Your task to perform on an android device: Search for the best way to get rid of a cold Image 0: 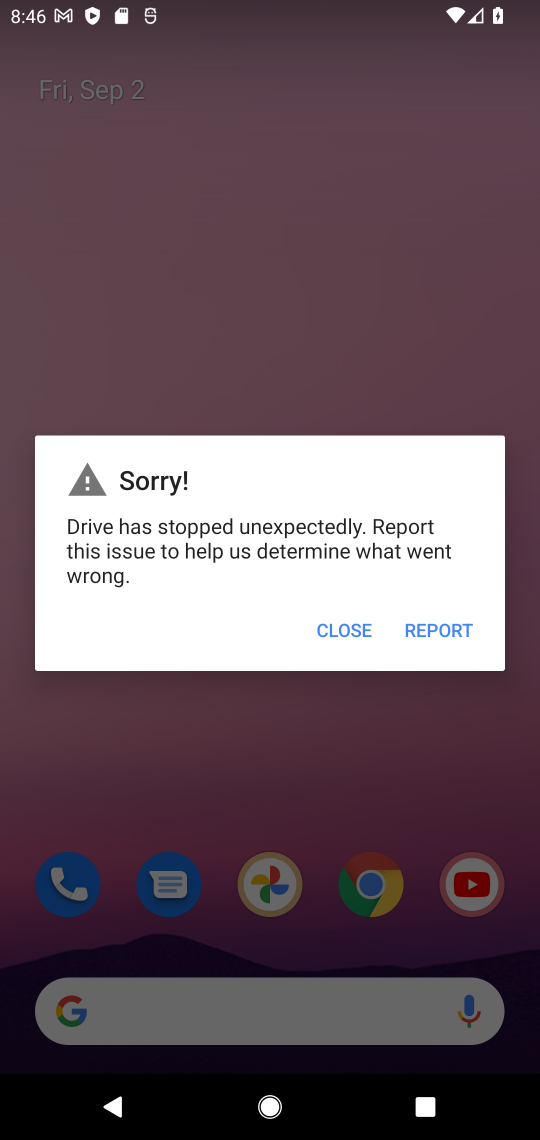
Step 0: press home button
Your task to perform on an android device: Search for the best way to get rid of a cold Image 1: 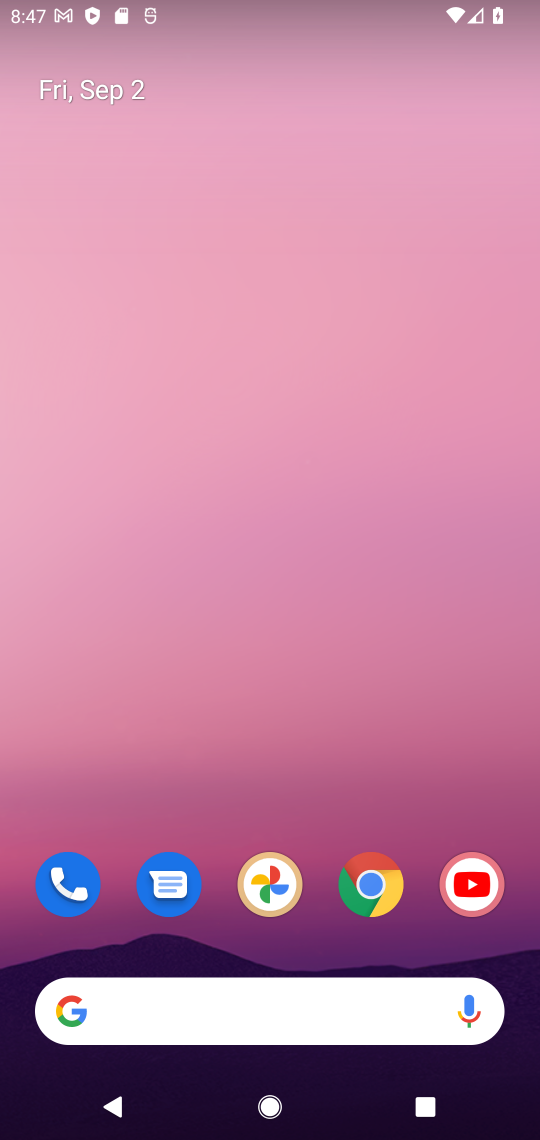
Step 1: click (388, 888)
Your task to perform on an android device: Search for the best way to get rid of a cold Image 2: 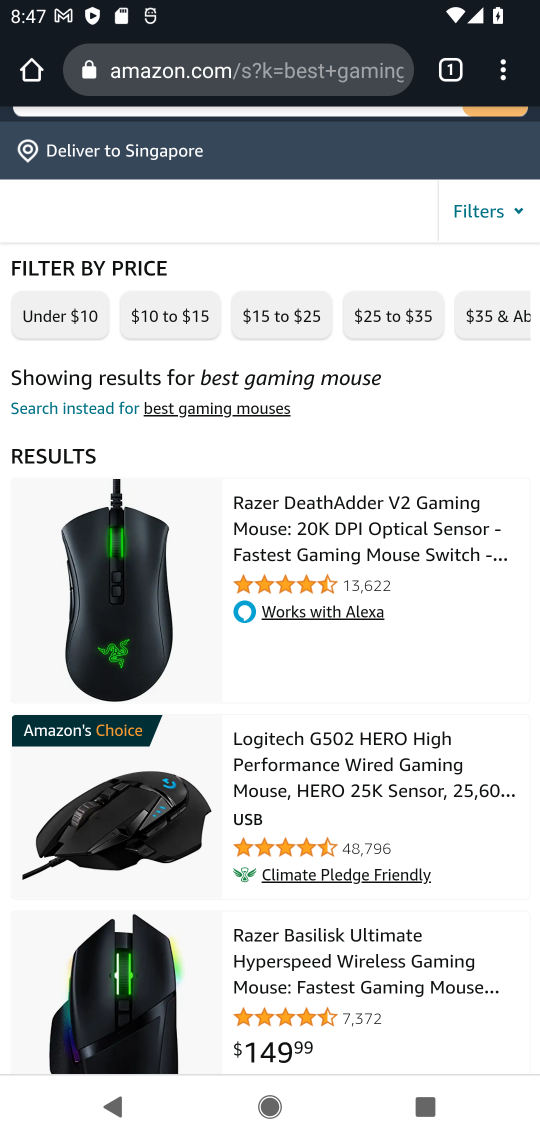
Step 2: press back button
Your task to perform on an android device: Search for the best way to get rid of a cold Image 3: 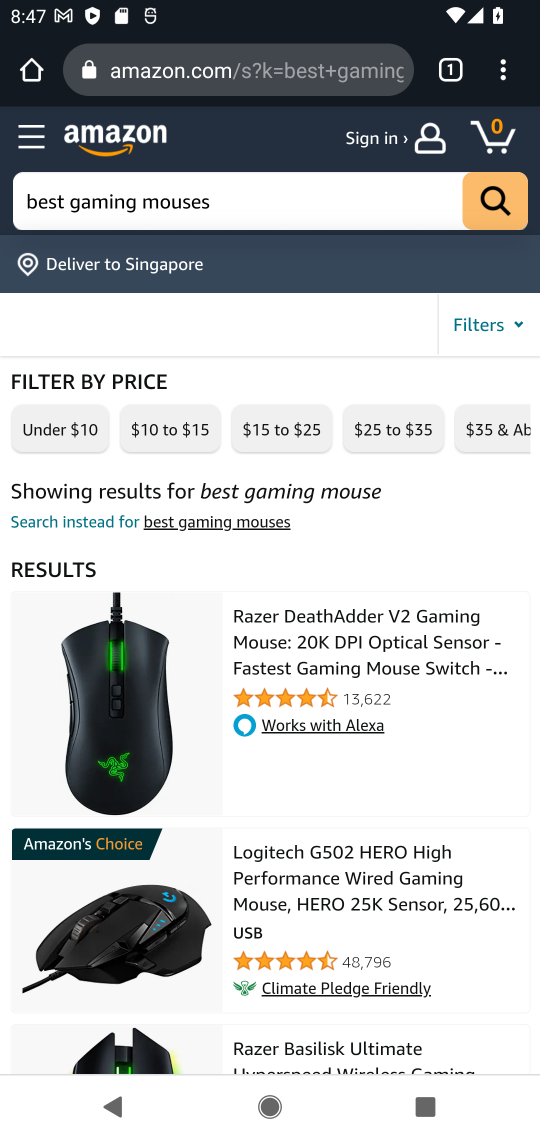
Step 3: press back button
Your task to perform on an android device: Search for the best way to get rid of a cold Image 4: 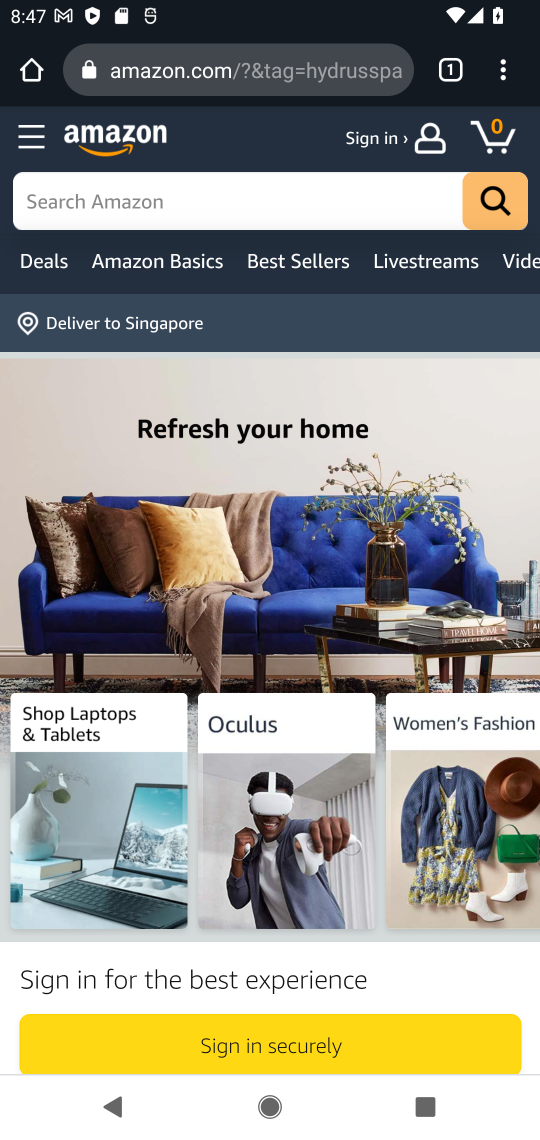
Step 4: click (205, 77)
Your task to perform on an android device: Search for the best way to get rid of a cold Image 5: 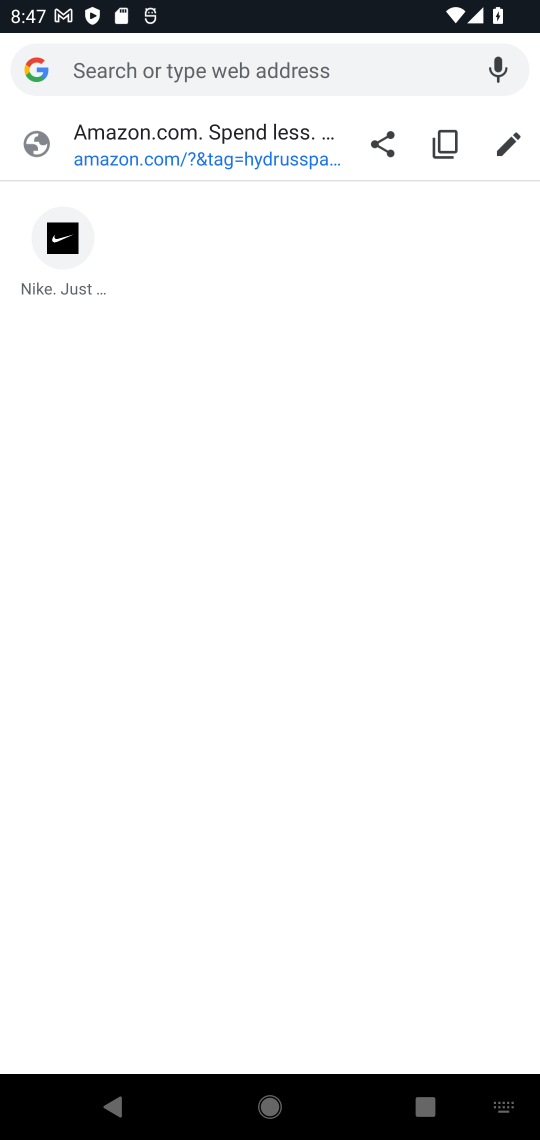
Step 5: type "the best way to get rid of a cold"
Your task to perform on an android device: Search for the best way to get rid of a cold Image 6: 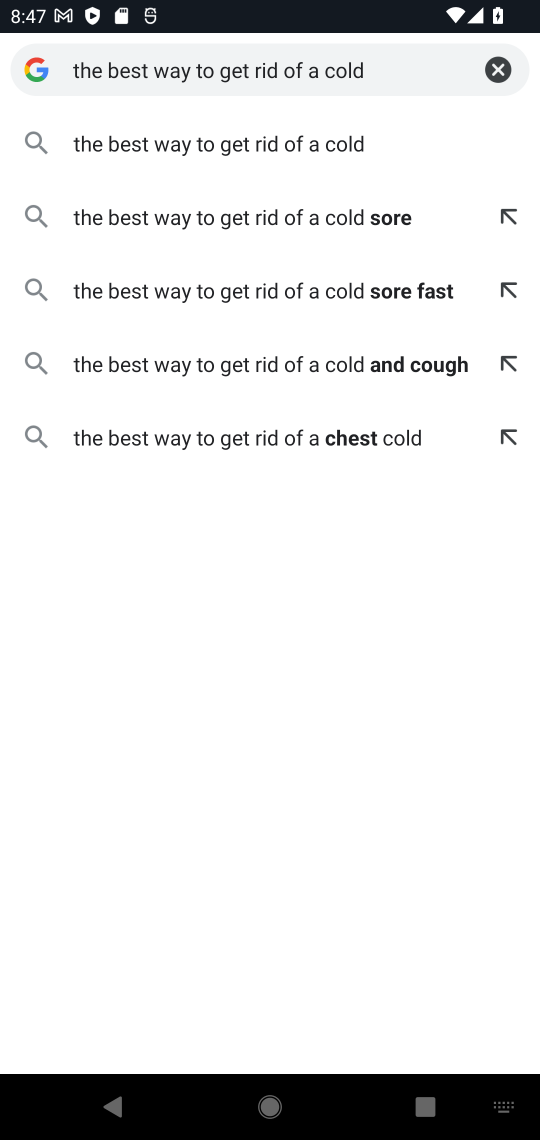
Step 6: click (237, 155)
Your task to perform on an android device: Search for the best way to get rid of a cold Image 7: 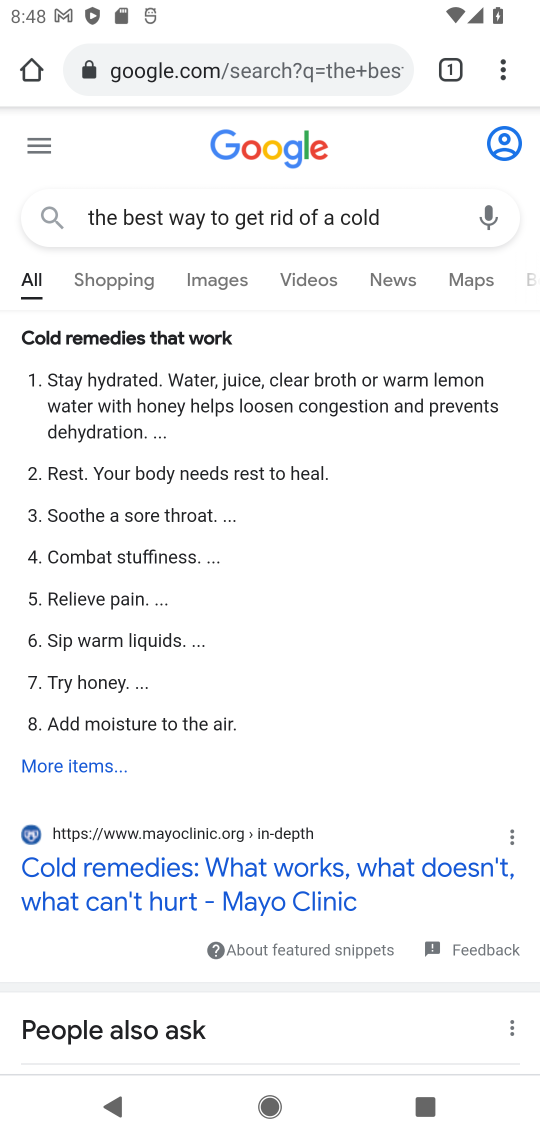
Step 7: drag from (279, 669) to (303, 391)
Your task to perform on an android device: Search for the best way to get rid of a cold Image 8: 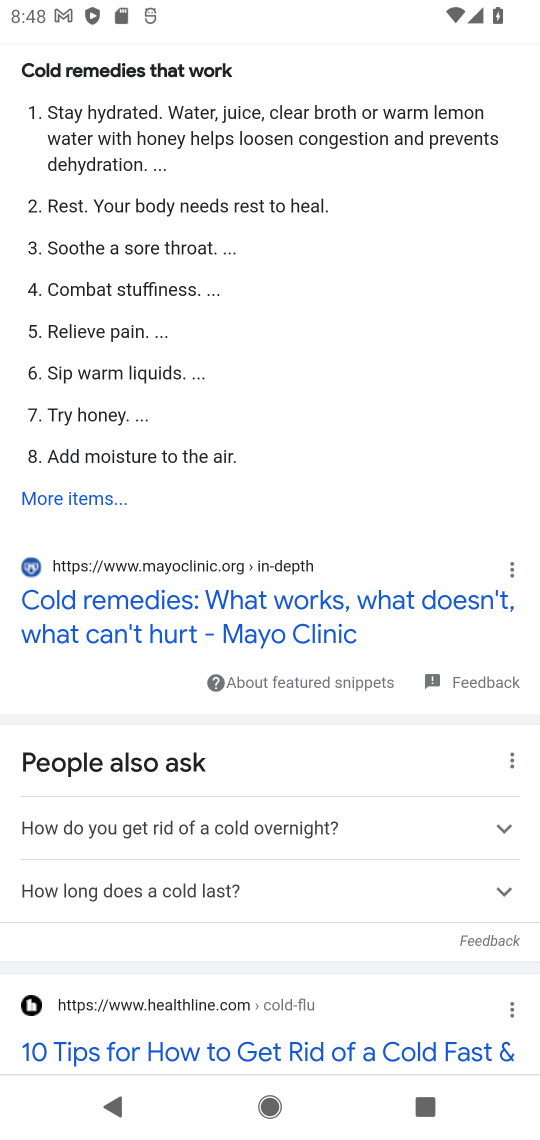
Step 8: drag from (255, 858) to (266, 590)
Your task to perform on an android device: Search for the best way to get rid of a cold Image 9: 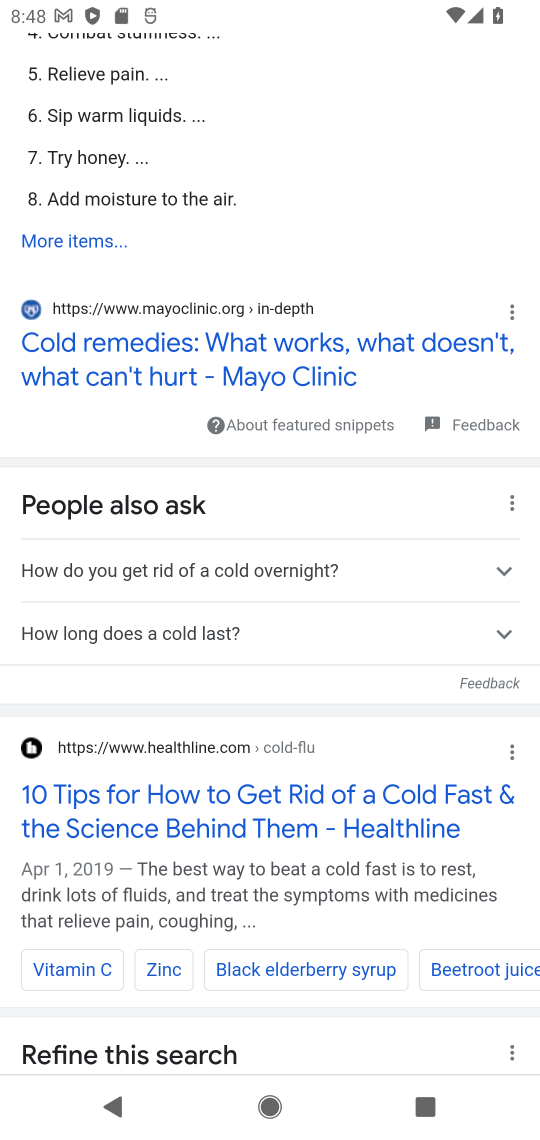
Step 9: drag from (224, 601) to (220, 484)
Your task to perform on an android device: Search for the best way to get rid of a cold Image 10: 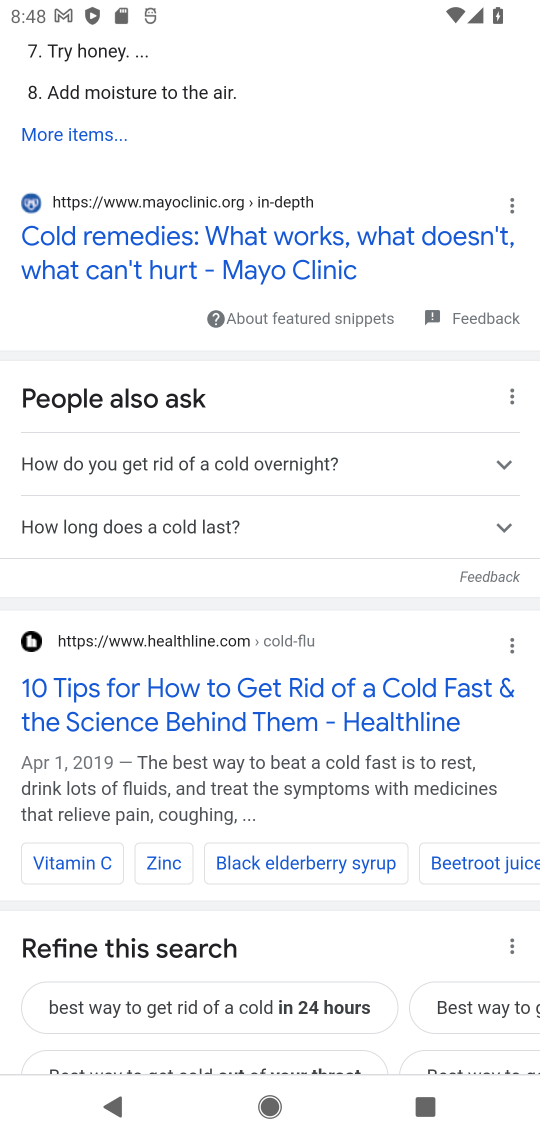
Step 10: drag from (213, 744) to (201, 491)
Your task to perform on an android device: Search for the best way to get rid of a cold Image 11: 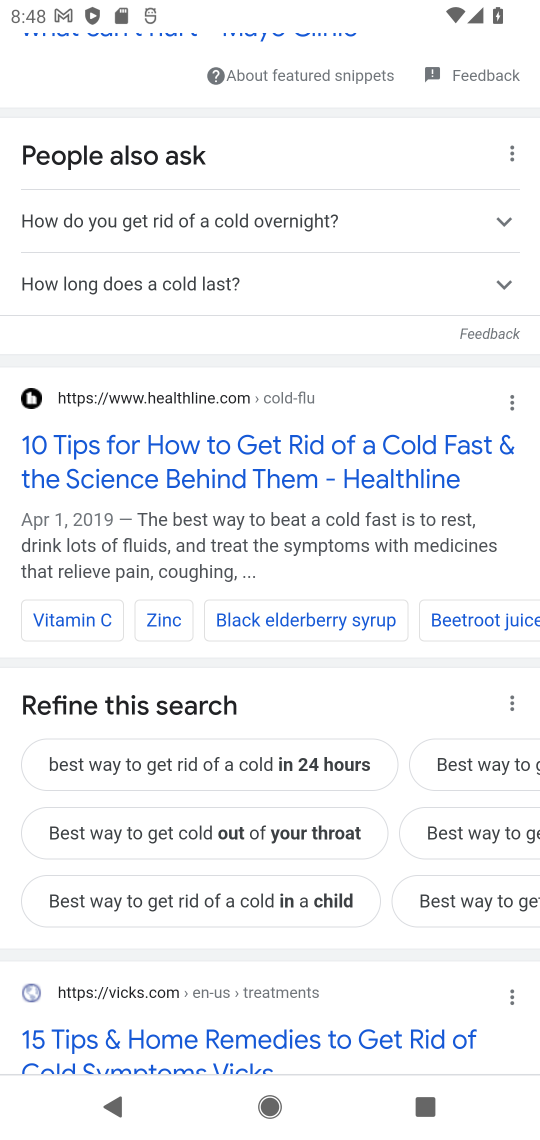
Step 11: drag from (269, 882) to (239, 497)
Your task to perform on an android device: Search for the best way to get rid of a cold Image 12: 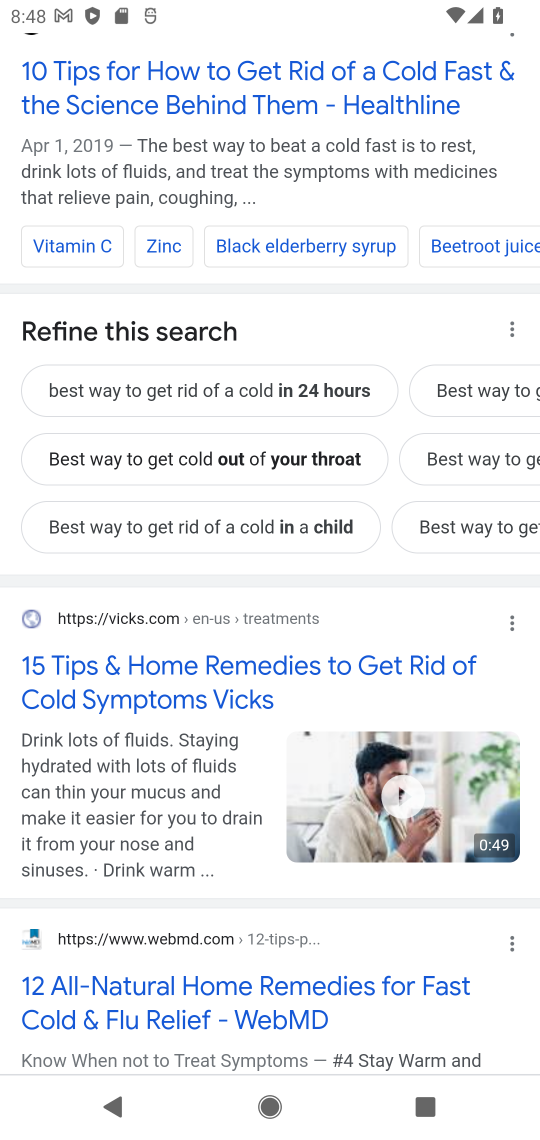
Step 12: drag from (131, 769) to (176, 463)
Your task to perform on an android device: Search for the best way to get rid of a cold Image 13: 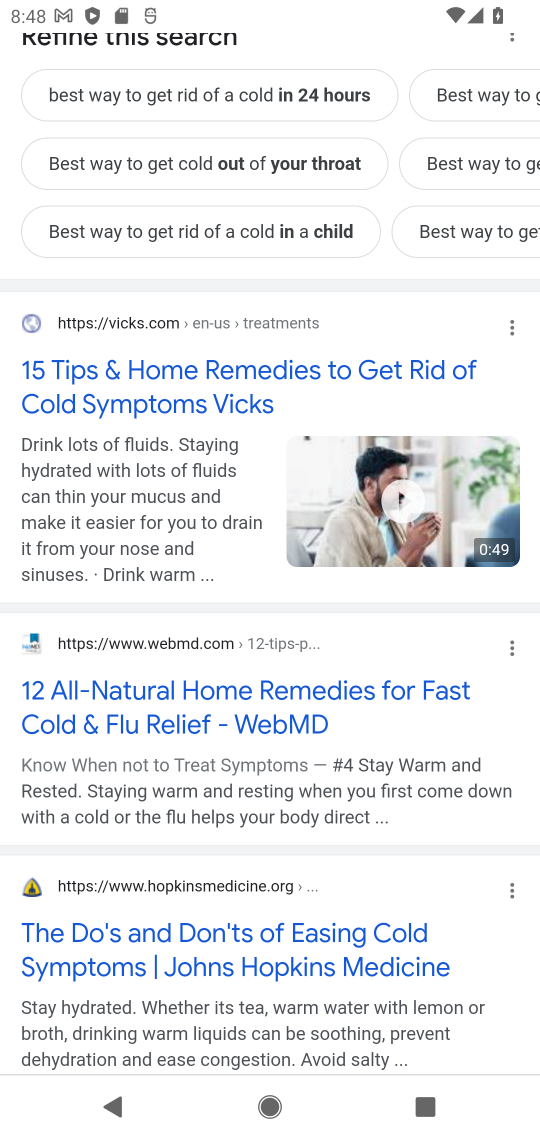
Step 13: drag from (196, 643) to (194, 483)
Your task to perform on an android device: Search for the best way to get rid of a cold Image 14: 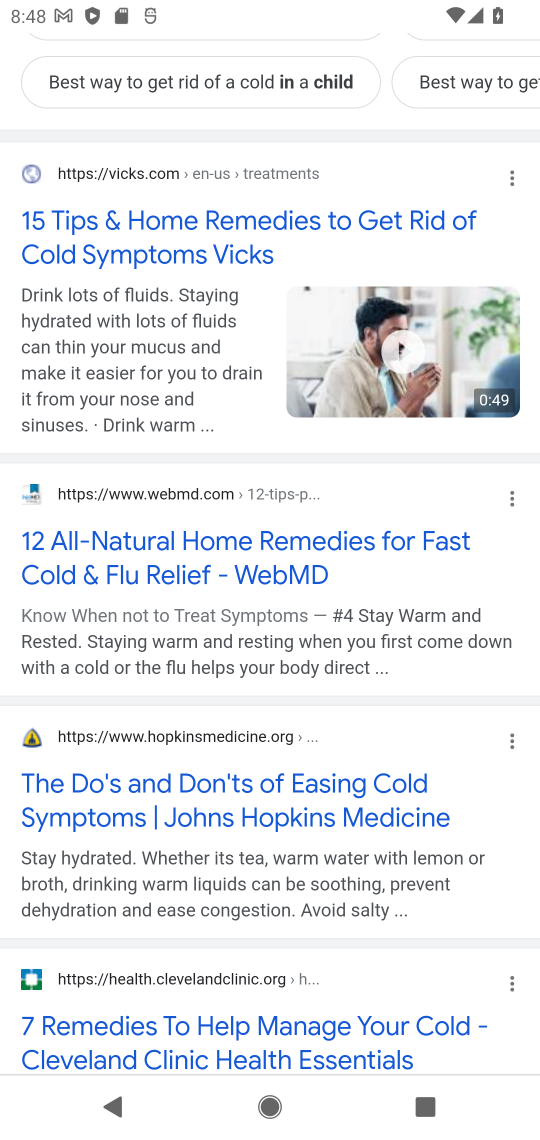
Step 14: drag from (322, 862) to (319, 252)
Your task to perform on an android device: Search for the best way to get rid of a cold Image 15: 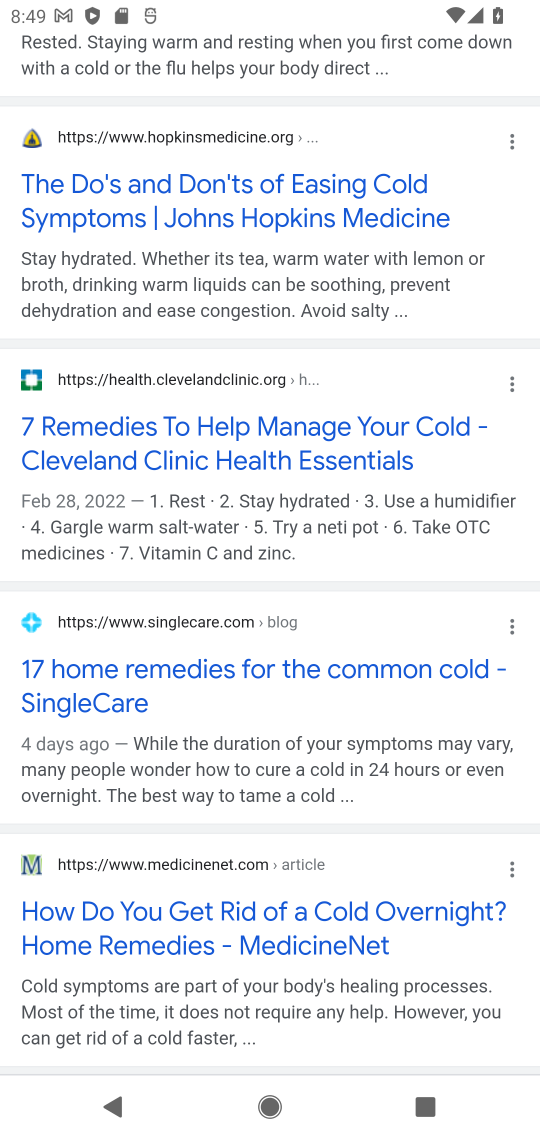
Step 15: drag from (235, 941) to (274, 550)
Your task to perform on an android device: Search for the best way to get rid of a cold Image 16: 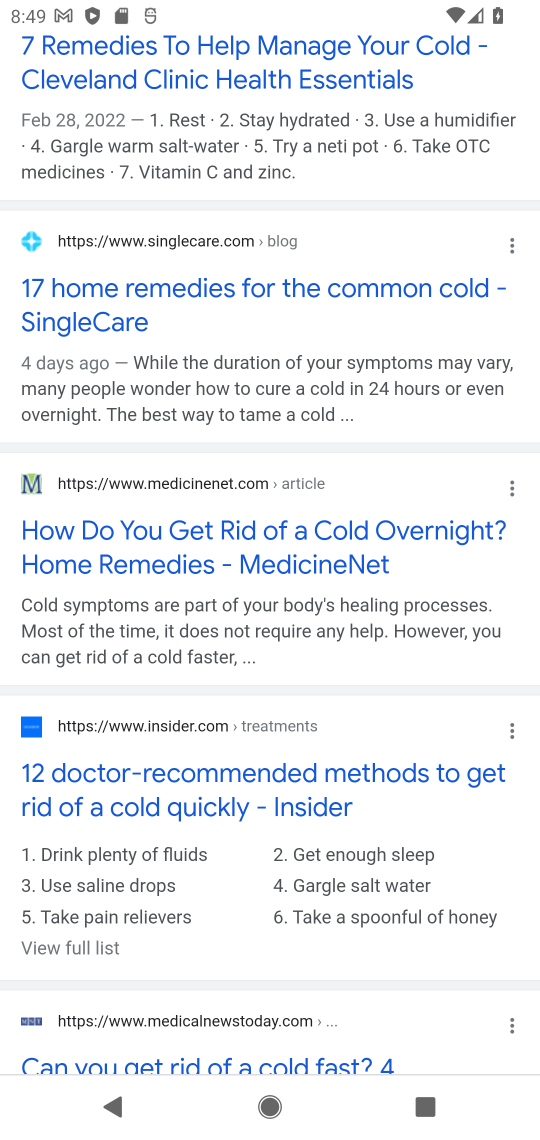
Step 16: drag from (269, 874) to (293, 562)
Your task to perform on an android device: Search for the best way to get rid of a cold Image 17: 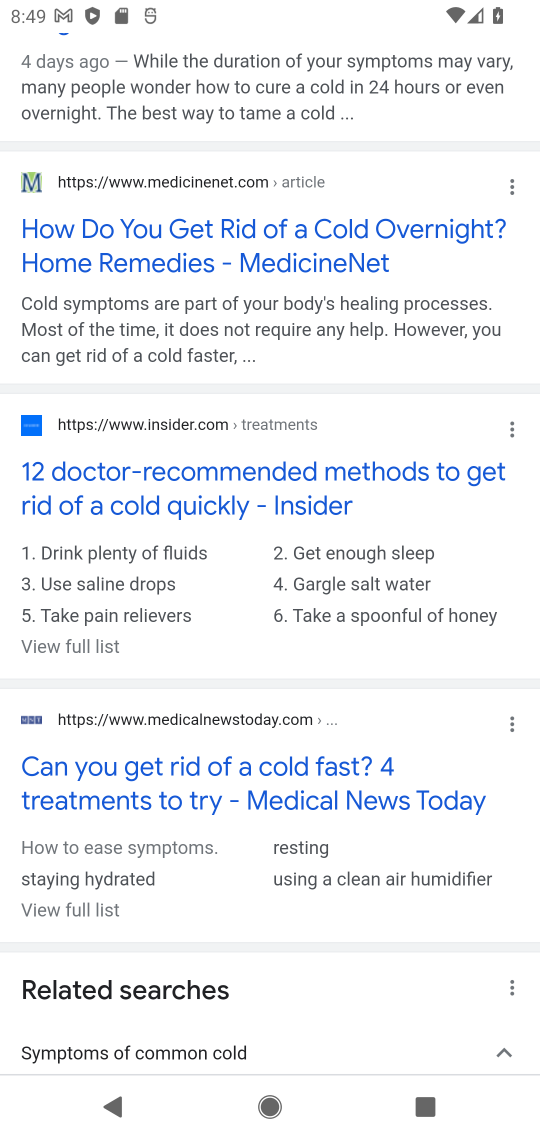
Step 17: click (173, 796)
Your task to perform on an android device: Search for the best way to get rid of a cold Image 18: 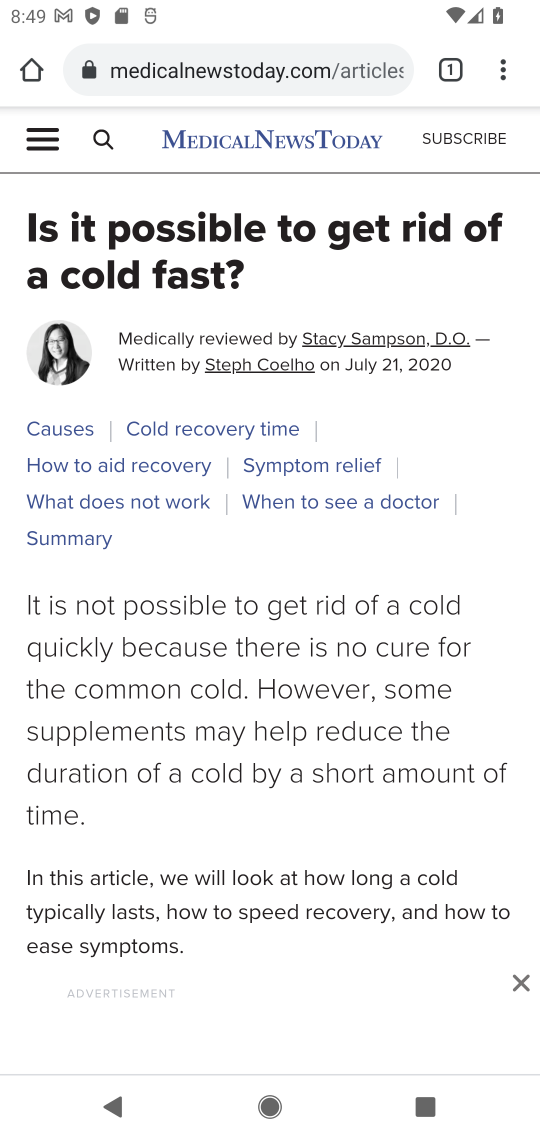
Step 18: task complete